Your task to perform on an android device: Open Youtube and go to "Your channel" Image 0: 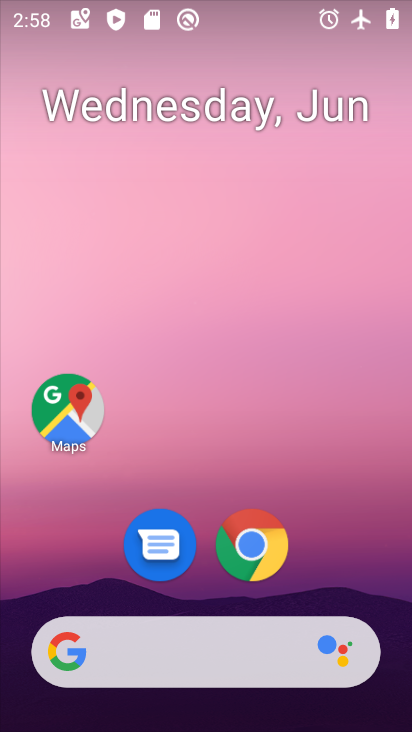
Step 0: drag from (405, 480) to (342, 134)
Your task to perform on an android device: Open Youtube and go to "Your channel" Image 1: 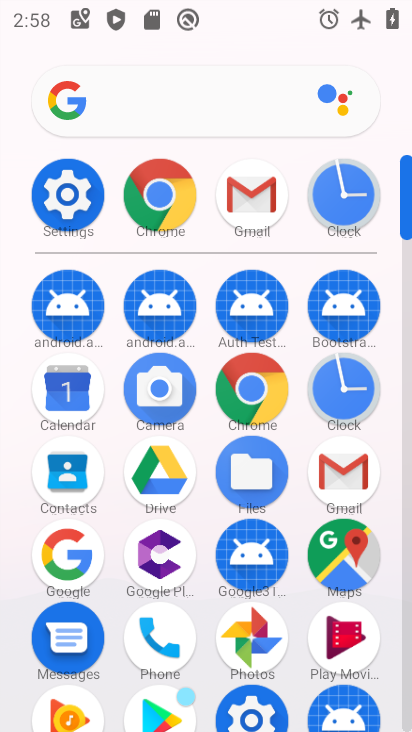
Step 1: drag from (203, 612) to (217, 259)
Your task to perform on an android device: Open Youtube and go to "Your channel" Image 2: 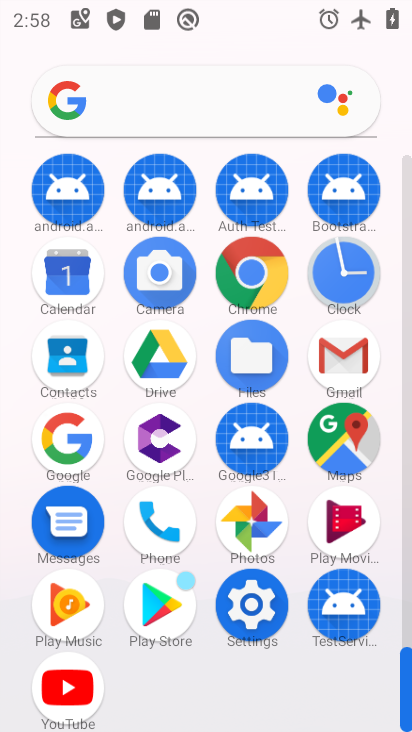
Step 2: click (49, 684)
Your task to perform on an android device: Open Youtube and go to "Your channel" Image 3: 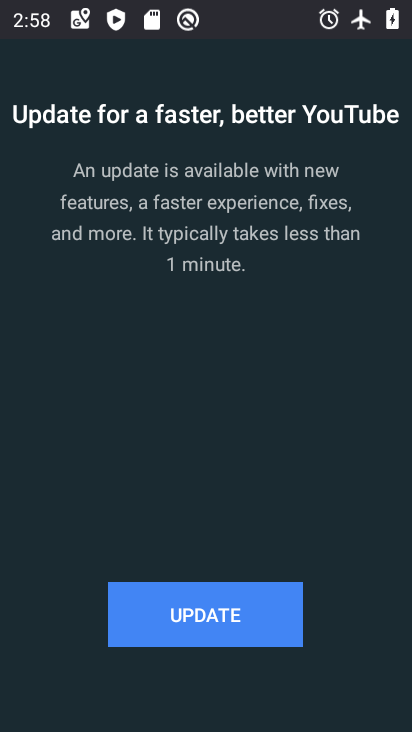
Step 3: click (212, 607)
Your task to perform on an android device: Open Youtube and go to "Your channel" Image 4: 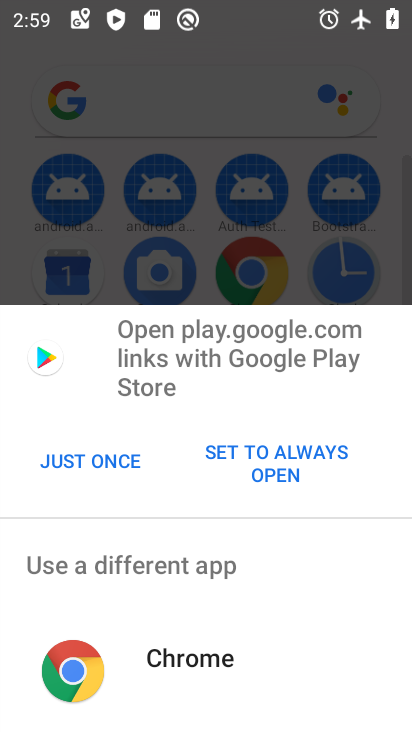
Step 4: click (117, 466)
Your task to perform on an android device: Open Youtube and go to "Your channel" Image 5: 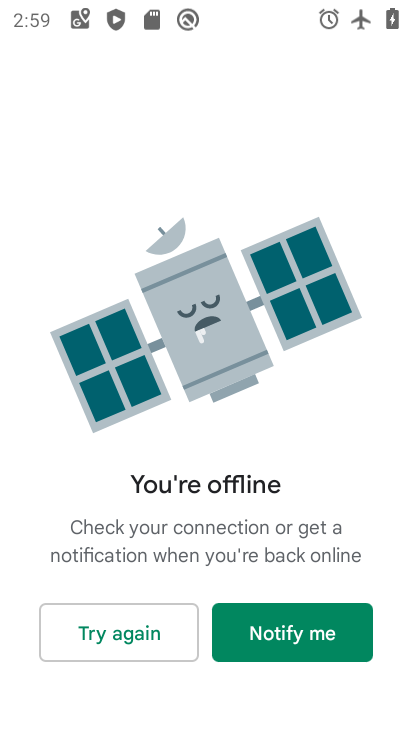
Step 5: task complete